Your task to perform on an android device: Search for "logitech g pro" on ebay.com, select the first entry, add it to the cart, then select checkout. Image 0: 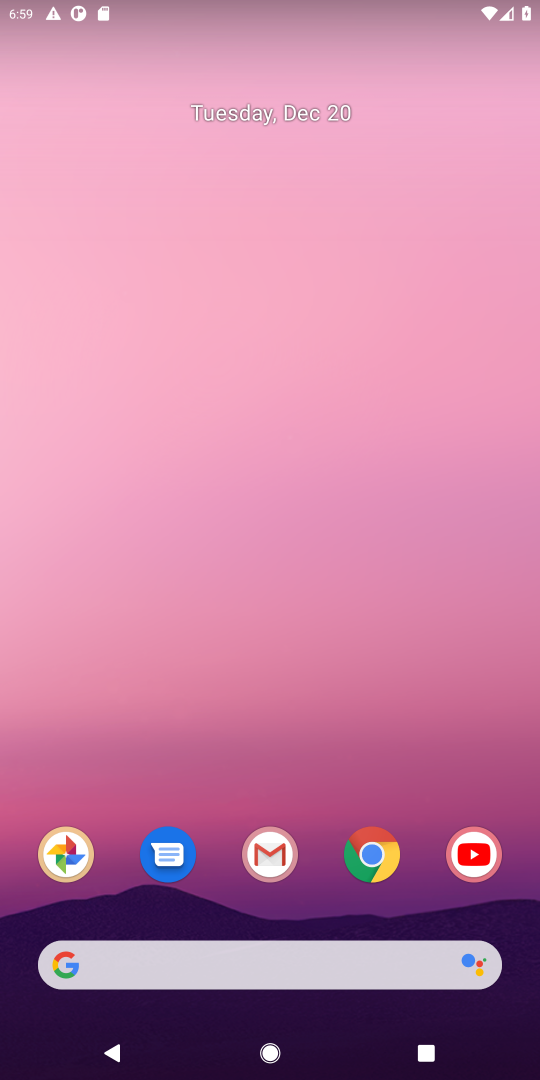
Step 0: click (370, 856)
Your task to perform on an android device: Search for "logitech g pro" on ebay.com, select the first entry, add it to the cart, then select checkout. Image 1: 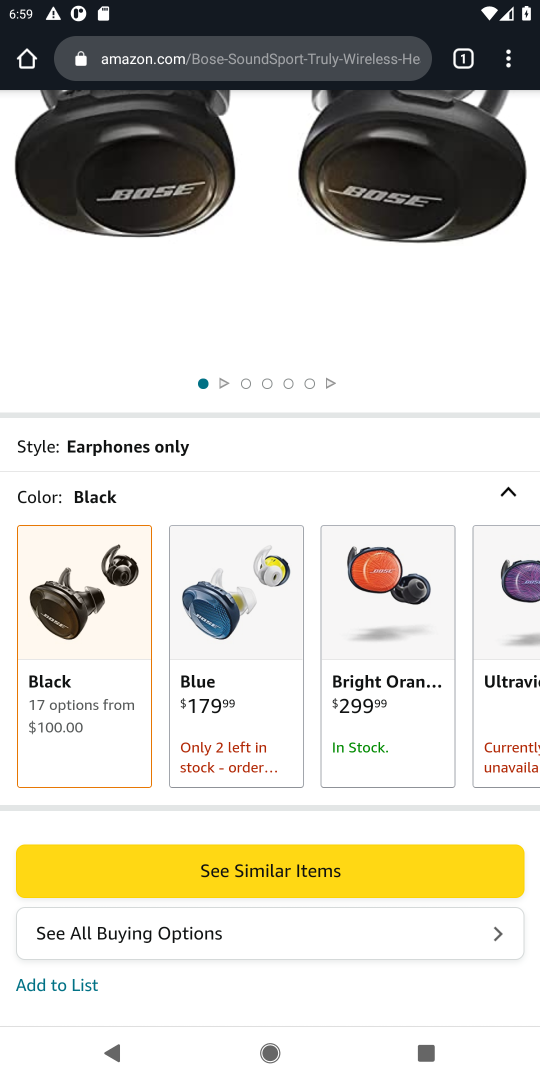
Step 1: click (202, 68)
Your task to perform on an android device: Search for "logitech g pro" on ebay.com, select the first entry, add it to the cart, then select checkout. Image 2: 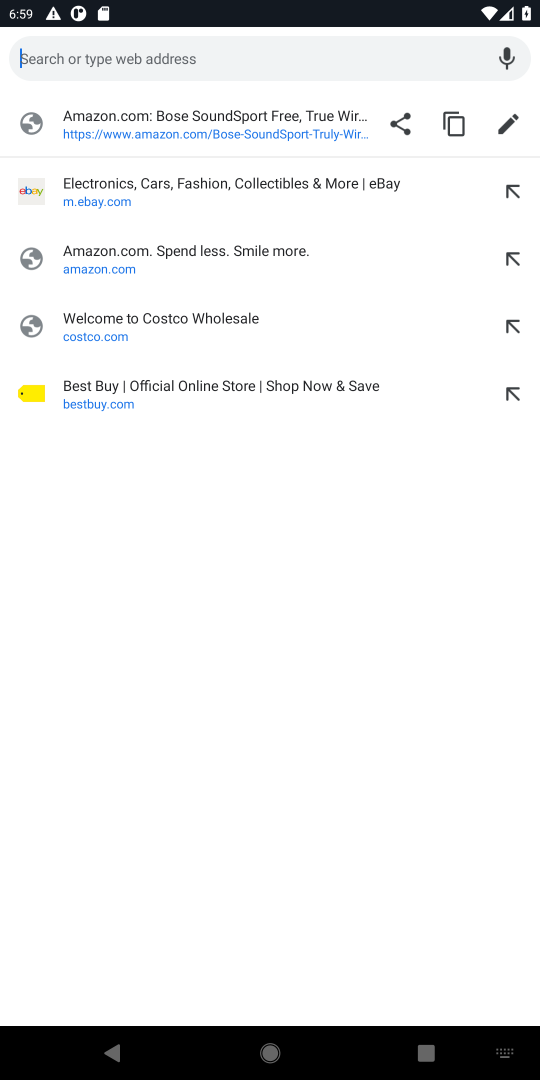
Step 2: click (102, 197)
Your task to perform on an android device: Search for "logitech g pro" on ebay.com, select the first entry, add it to the cart, then select checkout. Image 3: 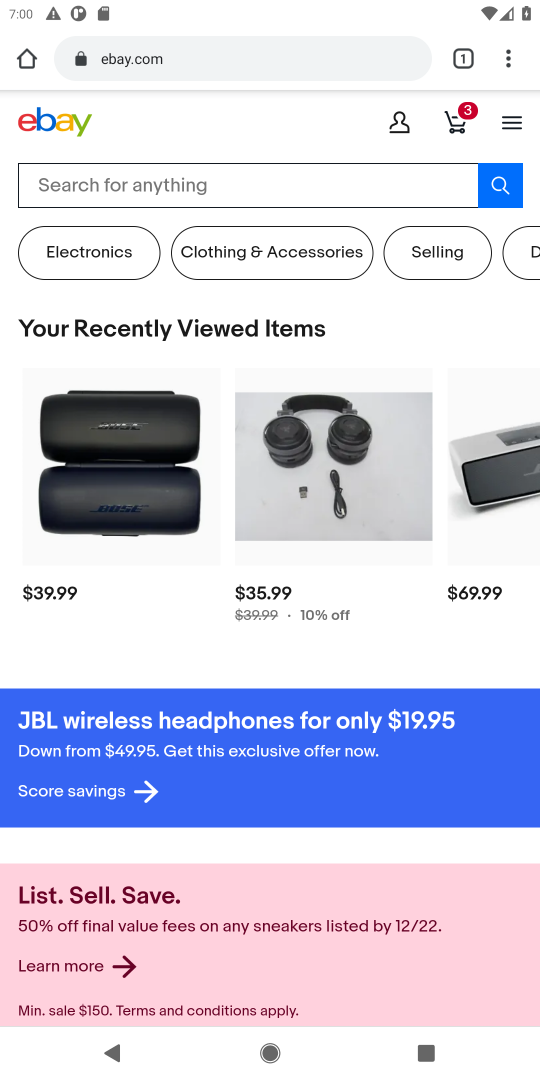
Step 3: click (96, 190)
Your task to perform on an android device: Search for "logitech g pro" on ebay.com, select the first entry, add it to the cart, then select checkout. Image 4: 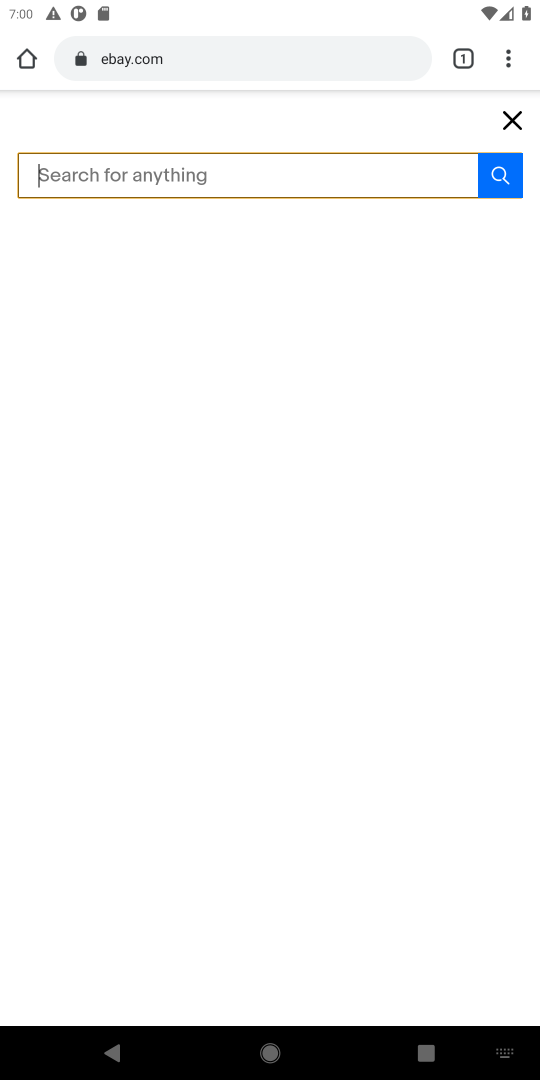
Step 4: type "logitech g pro"
Your task to perform on an android device: Search for "logitech g pro" on ebay.com, select the first entry, add it to the cart, then select checkout. Image 5: 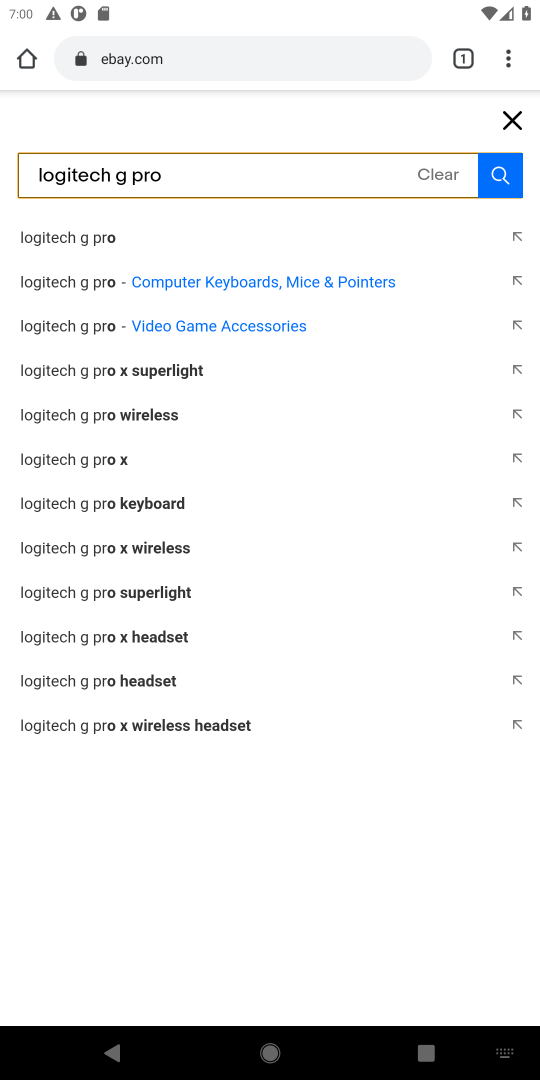
Step 5: click (75, 247)
Your task to perform on an android device: Search for "logitech g pro" on ebay.com, select the first entry, add it to the cart, then select checkout. Image 6: 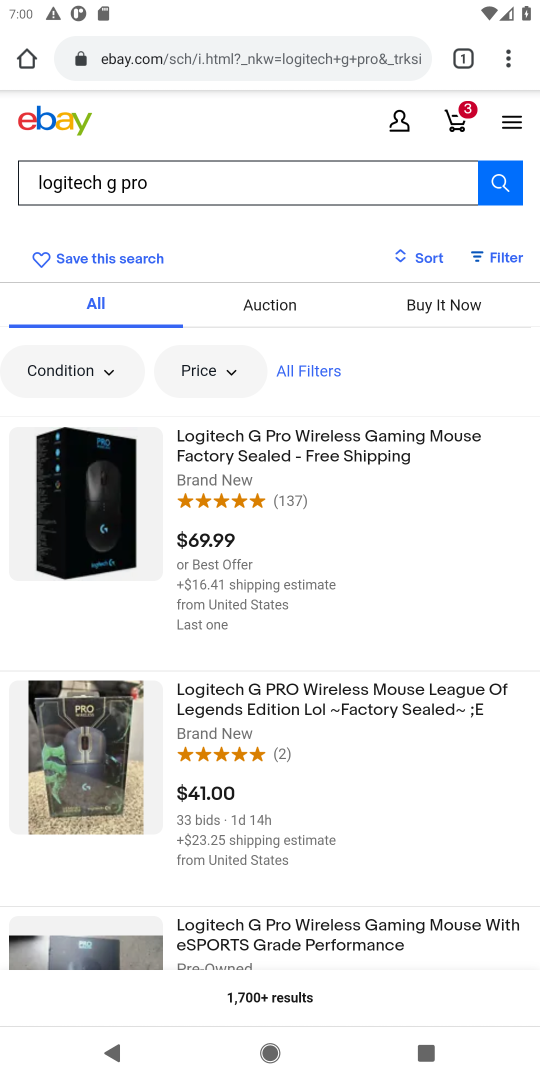
Step 6: click (219, 457)
Your task to perform on an android device: Search for "logitech g pro" on ebay.com, select the first entry, add it to the cart, then select checkout. Image 7: 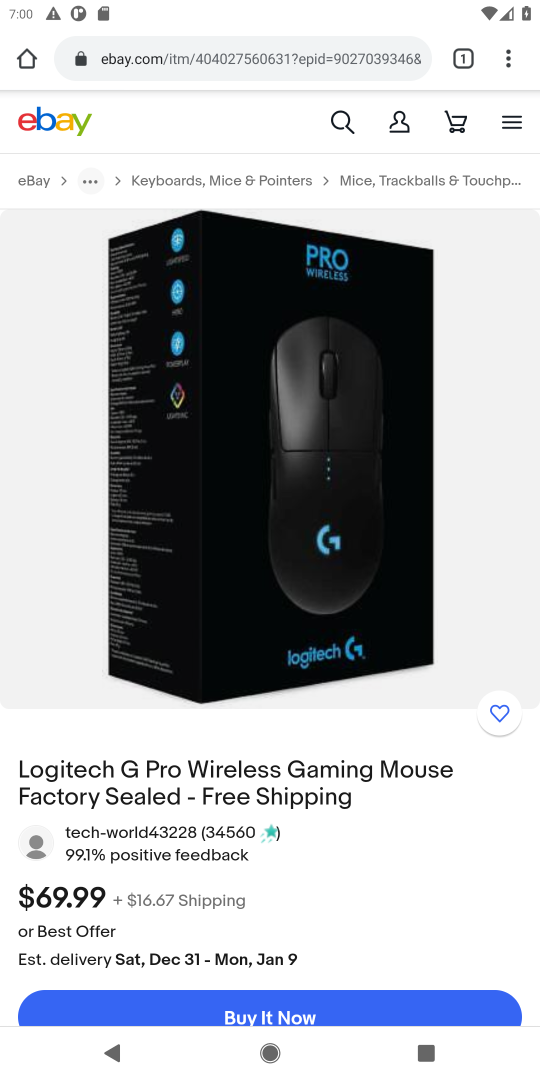
Step 7: drag from (215, 834) to (231, 398)
Your task to perform on an android device: Search for "logitech g pro" on ebay.com, select the first entry, add it to the cart, then select checkout. Image 8: 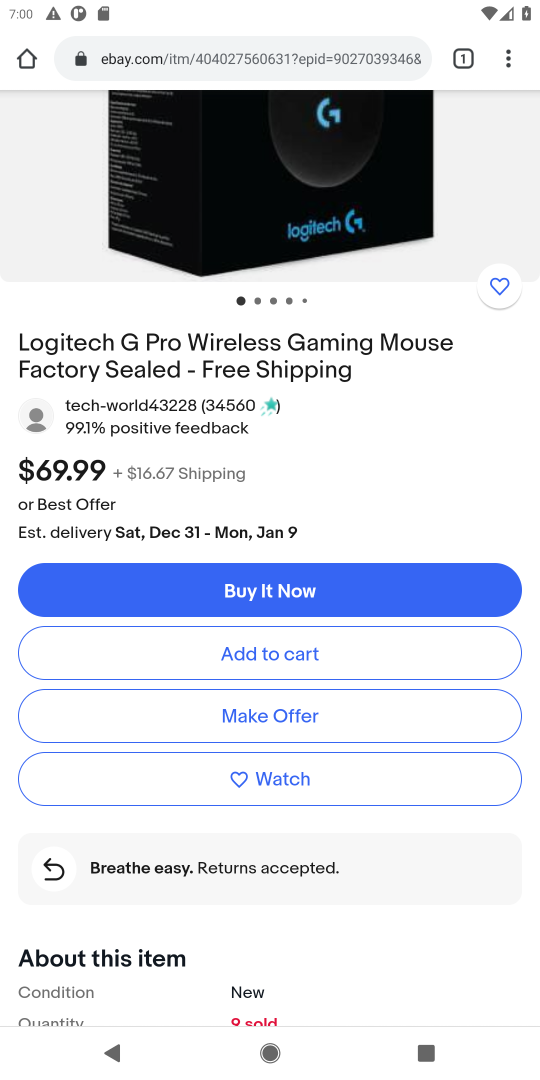
Step 8: click (251, 649)
Your task to perform on an android device: Search for "logitech g pro" on ebay.com, select the first entry, add it to the cart, then select checkout. Image 9: 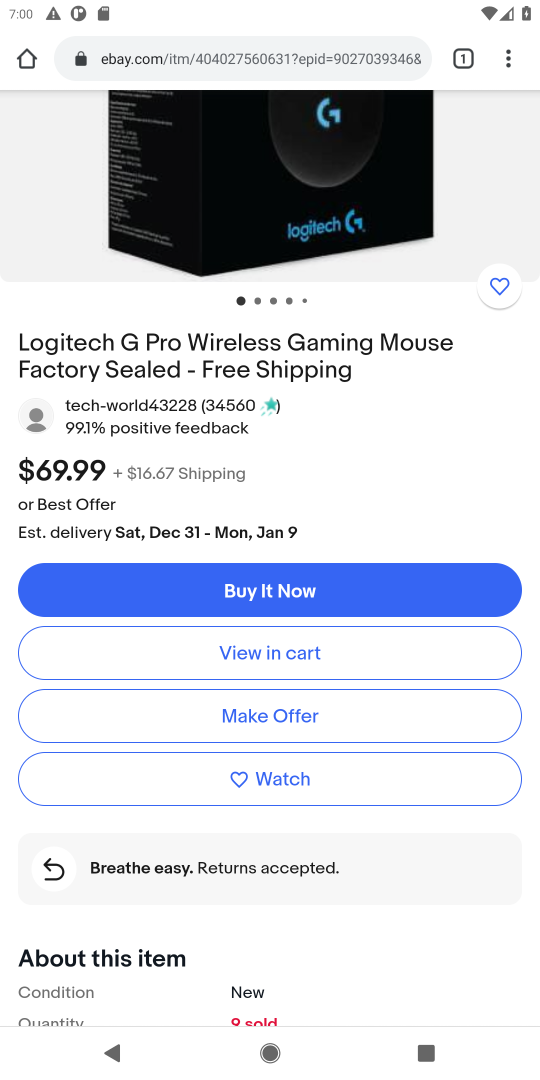
Step 9: click (251, 649)
Your task to perform on an android device: Search for "logitech g pro" on ebay.com, select the first entry, add it to the cart, then select checkout. Image 10: 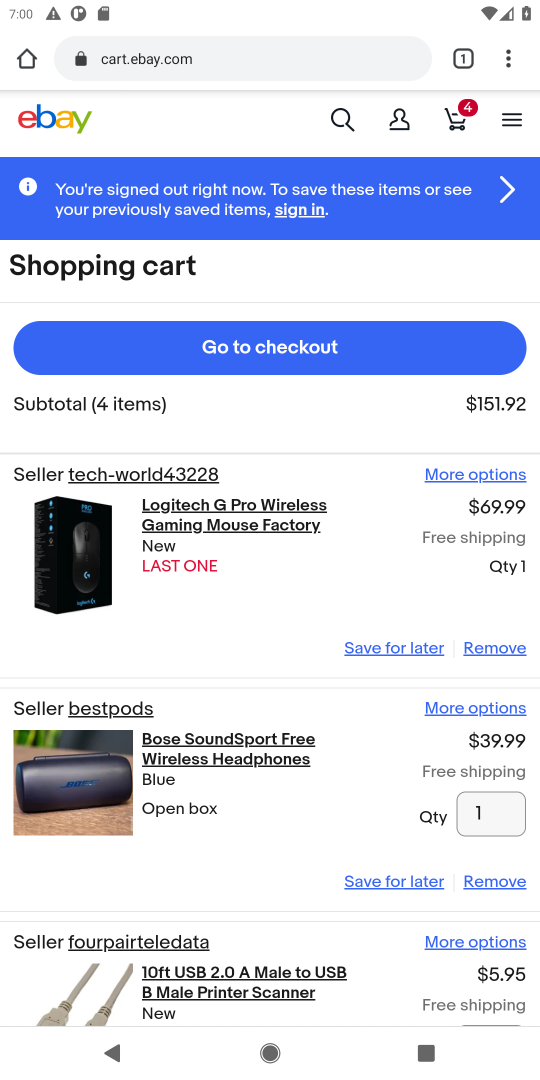
Step 10: click (248, 346)
Your task to perform on an android device: Search for "logitech g pro" on ebay.com, select the first entry, add it to the cart, then select checkout. Image 11: 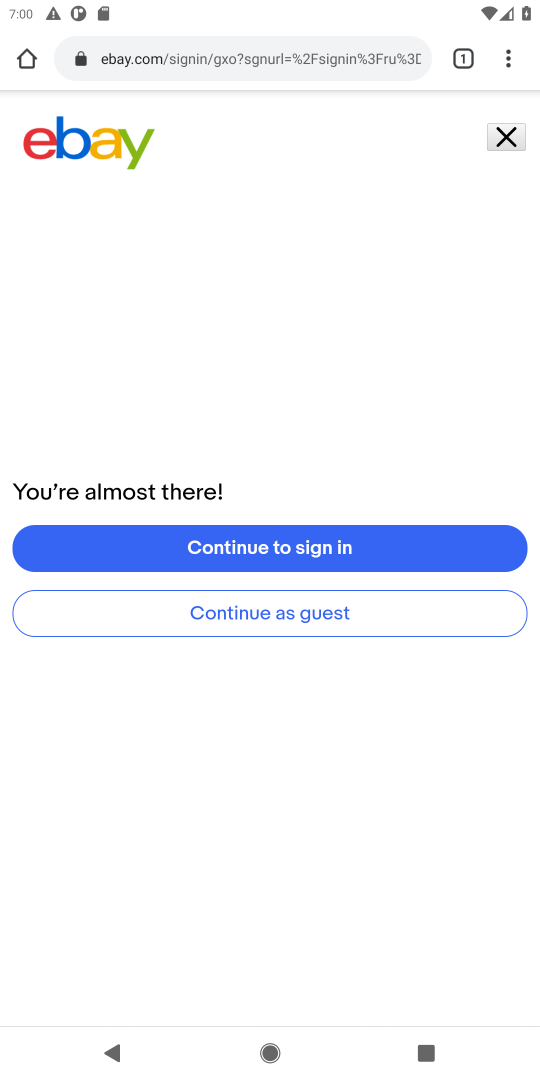
Step 11: task complete